Your task to perform on an android device: Go to accessibility settings Image 0: 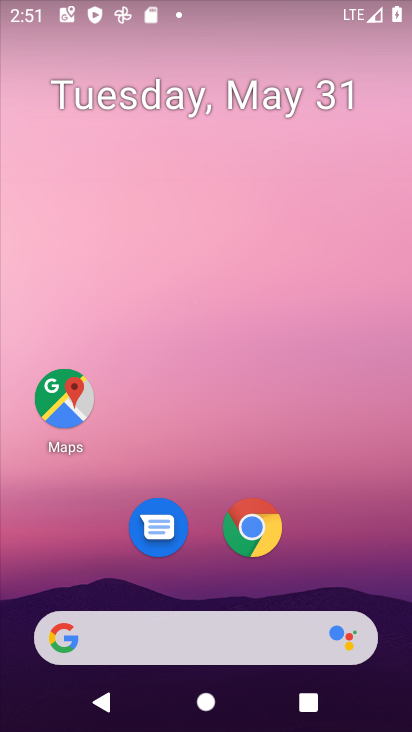
Step 0: drag from (357, 503) to (295, 9)
Your task to perform on an android device: Go to accessibility settings Image 1: 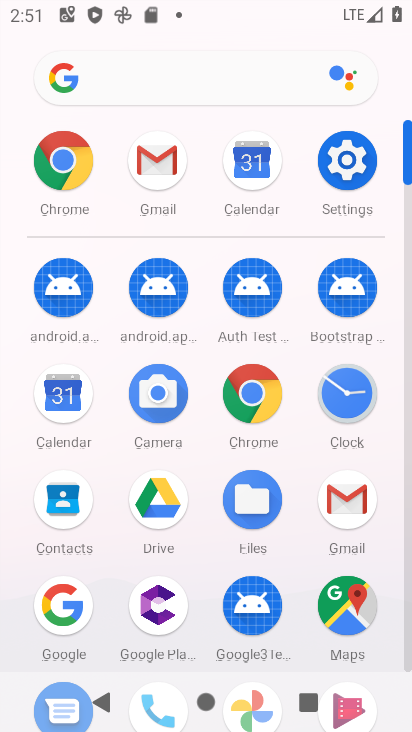
Step 1: click (346, 156)
Your task to perform on an android device: Go to accessibility settings Image 2: 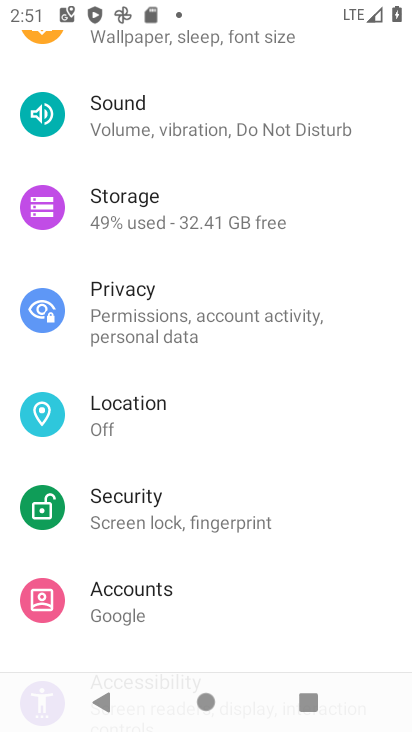
Step 2: drag from (201, 594) to (230, 167)
Your task to perform on an android device: Go to accessibility settings Image 3: 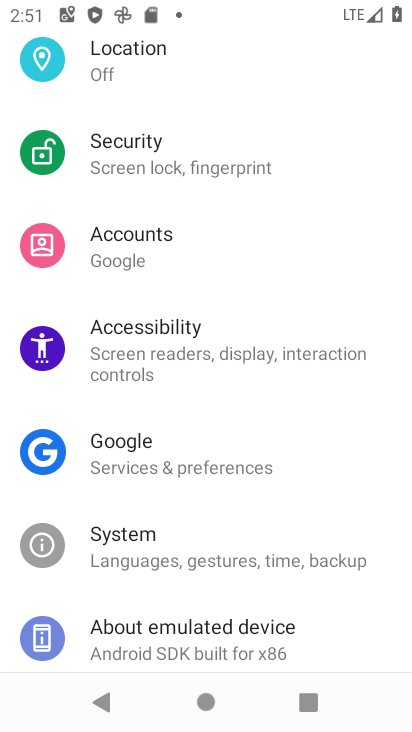
Step 3: click (135, 353)
Your task to perform on an android device: Go to accessibility settings Image 4: 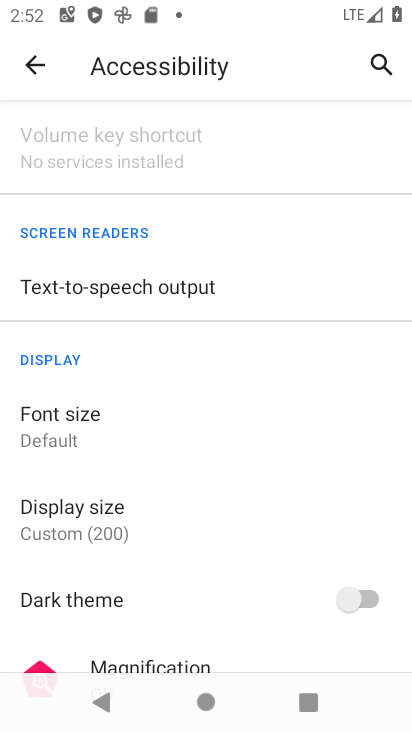
Step 4: task complete